Your task to perform on an android device: Open the Play Movies app and select the watchlist tab. Image 0: 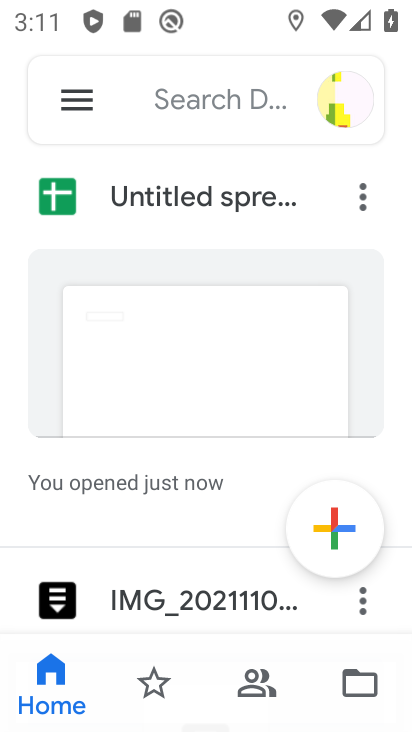
Step 0: press home button
Your task to perform on an android device: Open the Play Movies app and select the watchlist tab. Image 1: 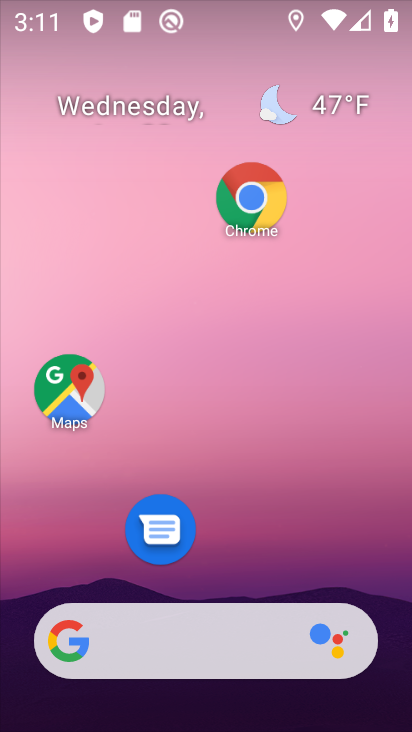
Step 1: drag from (271, 474) to (272, 48)
Your task to perform on an android device: Open the Play Movies app and select the watchlist tab. Image 2: 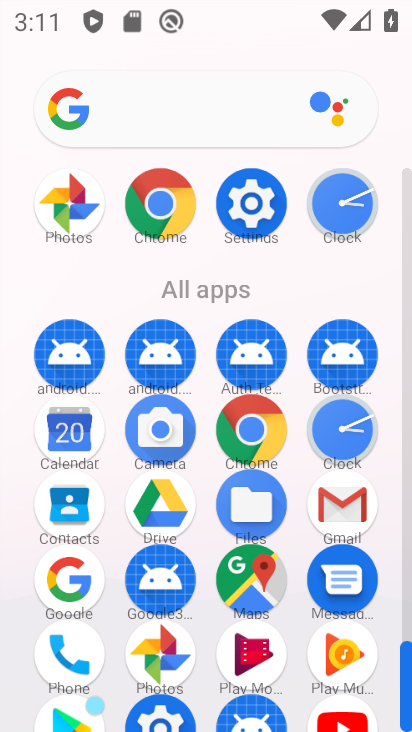
Step 2: click (246, 652)
Your task to perform on an android device: Open the Play Movies app and select the watchlist tab. Image 3: 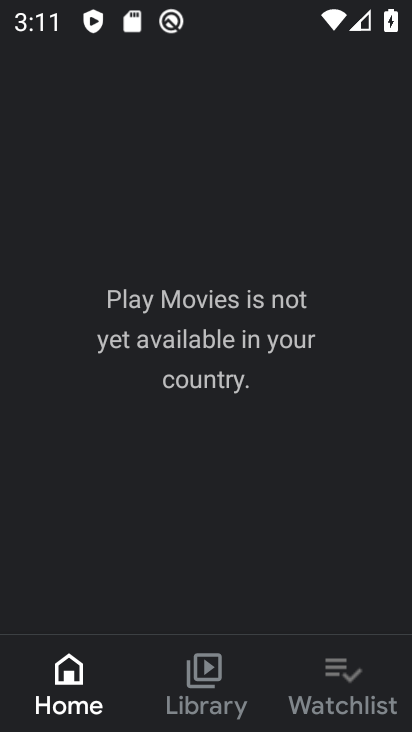
Step 3: click (344, 678)
Your task to perform on an android device: Open the Play Movies app and select the watchlist tab. Image 4: 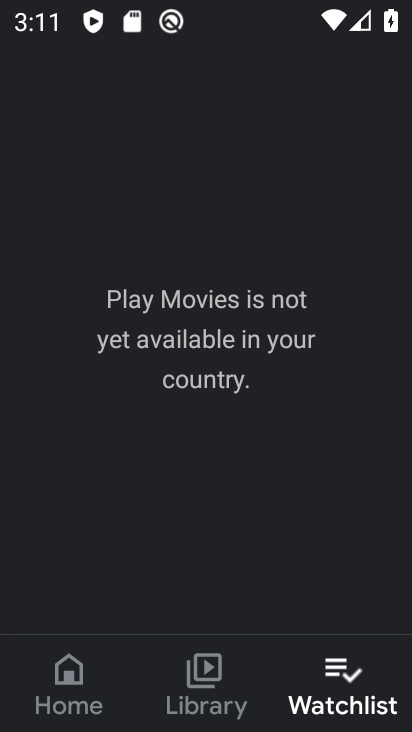
Step 4: task complete